Your task to perform on an android device: install app "VLC for Android" Image 0: 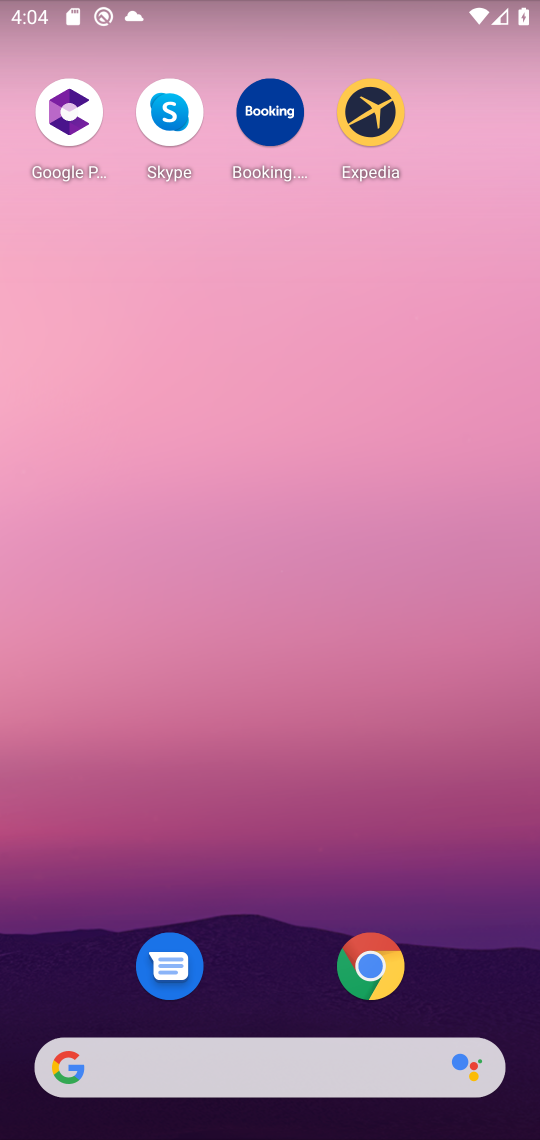
Step 0: drag from (287, 988) to (228, 18)
Your task to perform on an android device: install app "VLC for Android" Image 1: 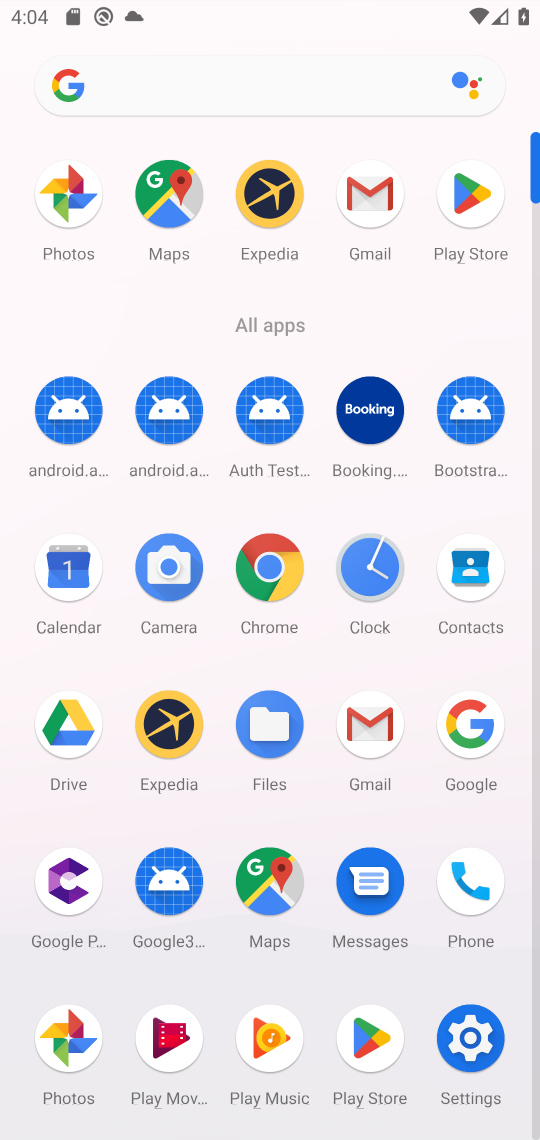
Step 1: click (367, 1031)
Your task to perform on an android device: install app "VLC for Android" Image 2: 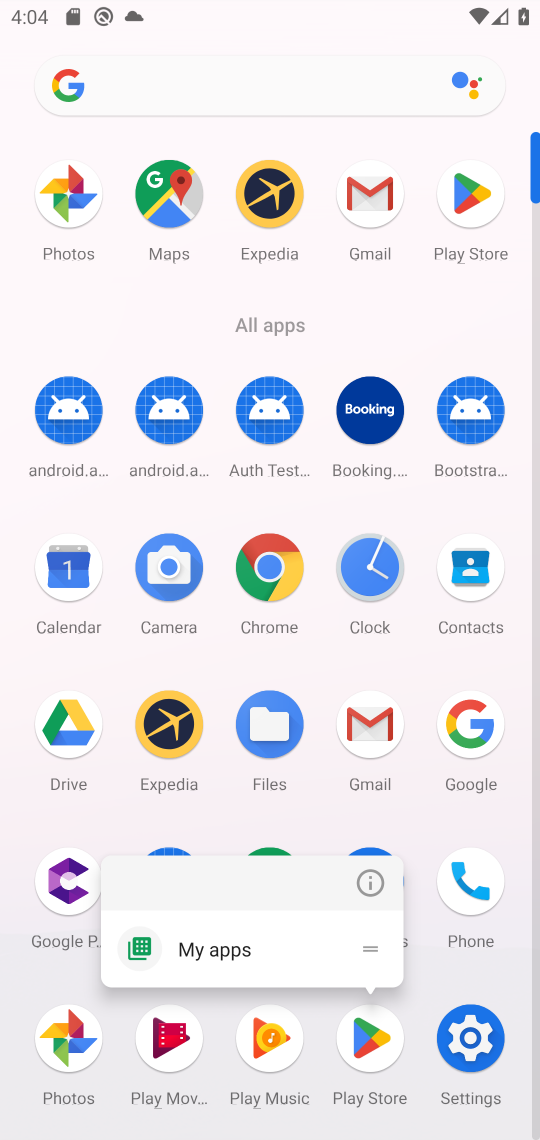
Step 2: click (388, 1051)
Your task to perform on an android device: install app "VLC for Android" Image 3: 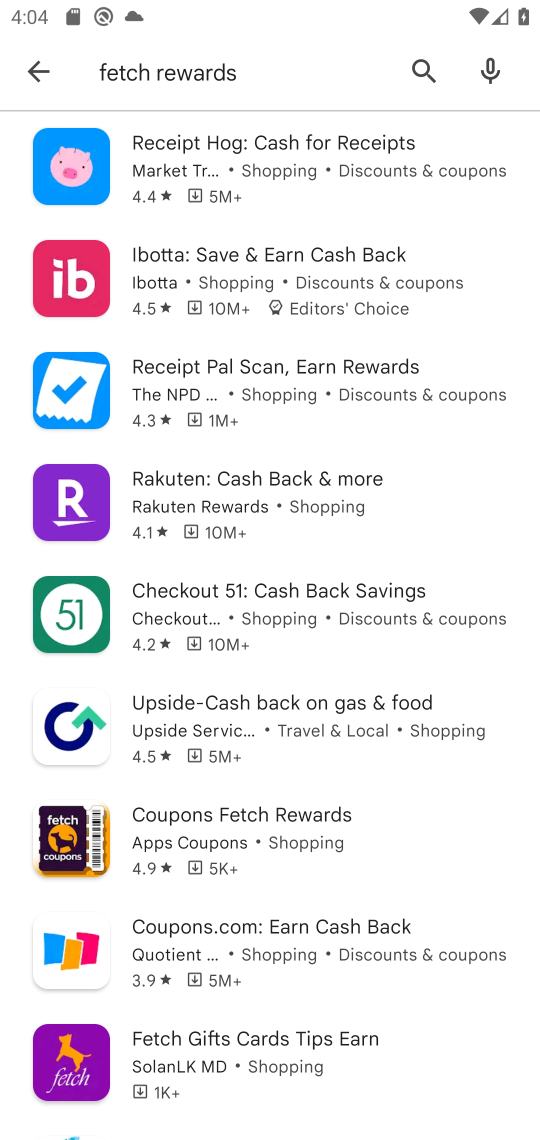
Step 3: click (98, 62)
Your task to perform on an android device: install app "VLC for Android" Image 4: 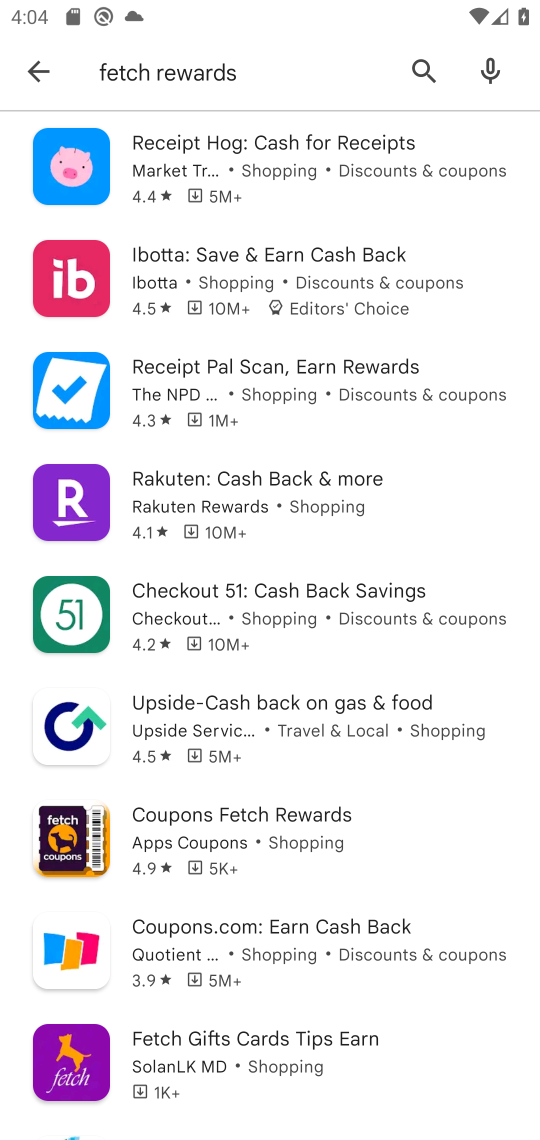
Step 4: click (41, 69)
Your task to perform on an android device: install app "VLC for Android" Image 5: 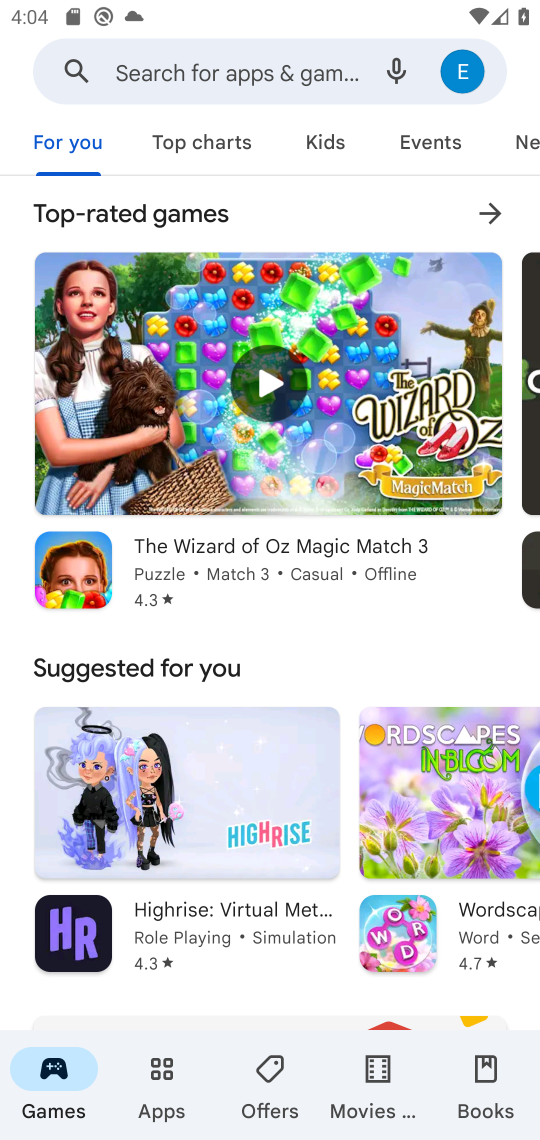
Step 5: click (327, 60)
Your task to perform on an android device: install app "VLC for Android" Image 6: 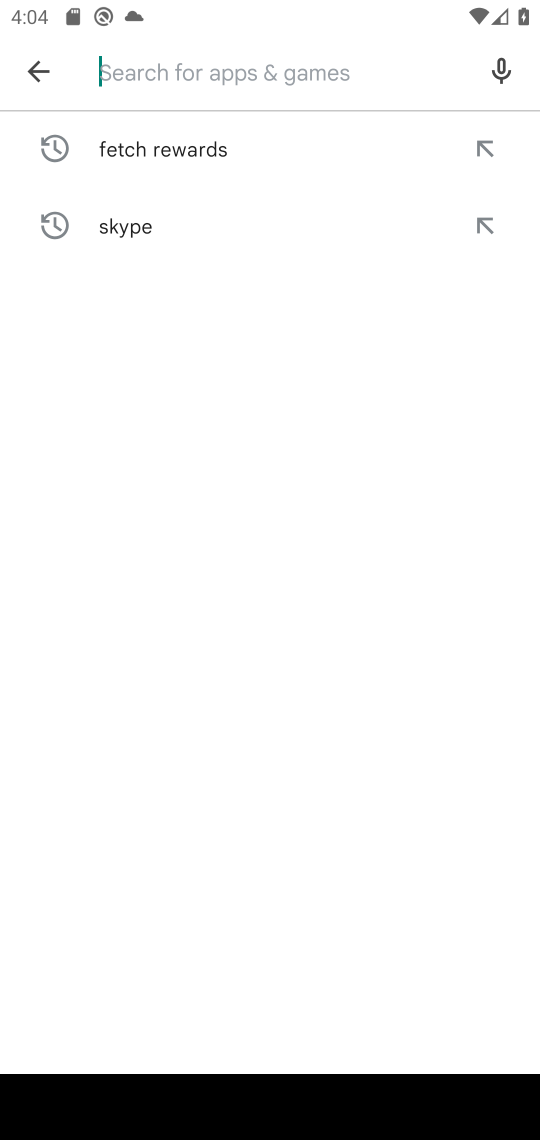
Step 6: type "VLC for Android"
Your task to perform on an android device: install app "VLC for Android" Image 7: 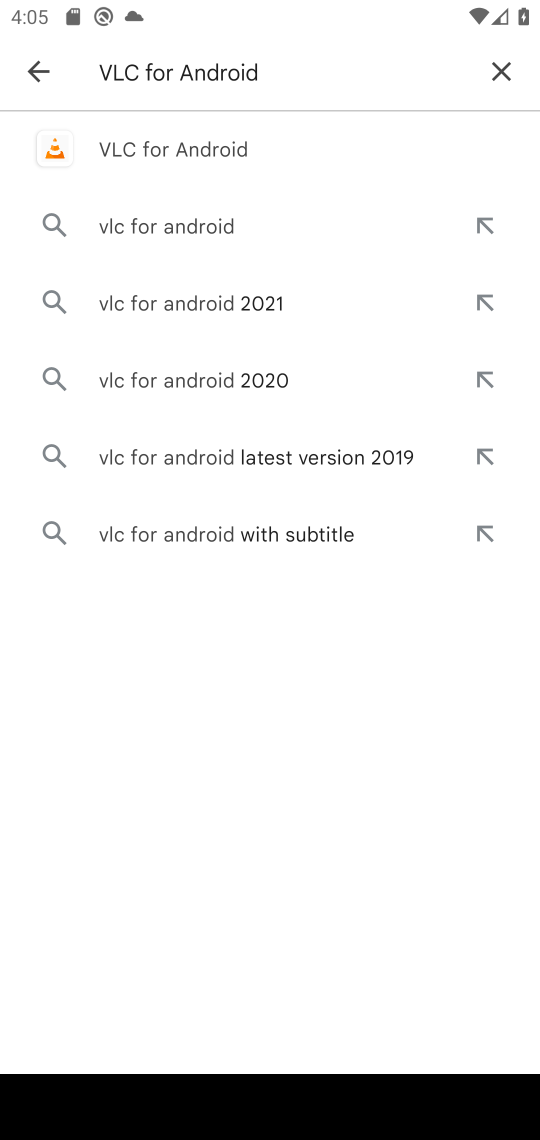
Step 7: click (115, 148)
Your task to perform on an android device: install app "VLC for Android" Image 8: 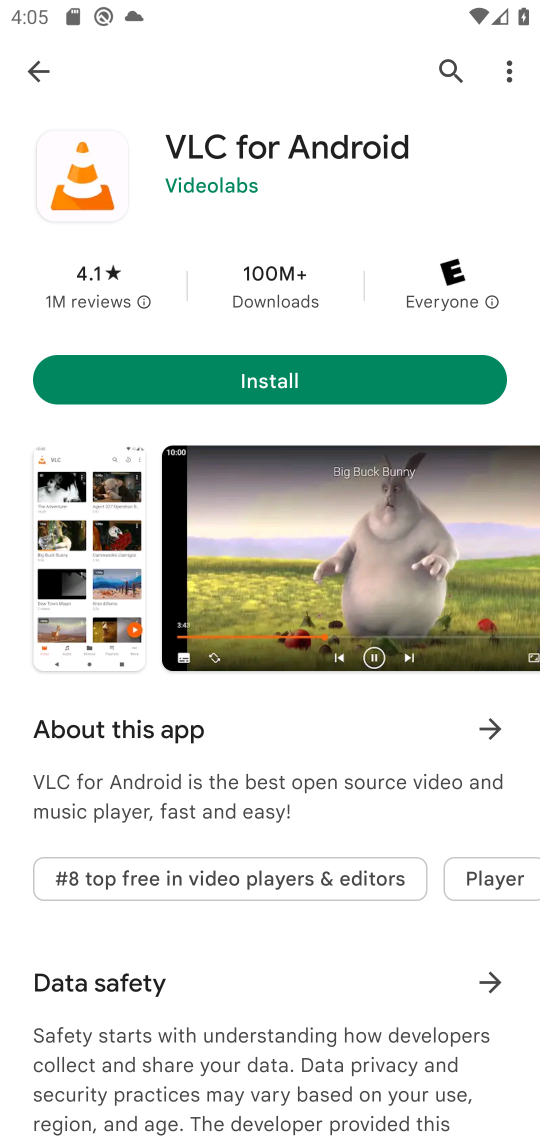
Step 8: click (245, 381)
Your task to perform on an android device: install app "VLC for Android" Image 9: 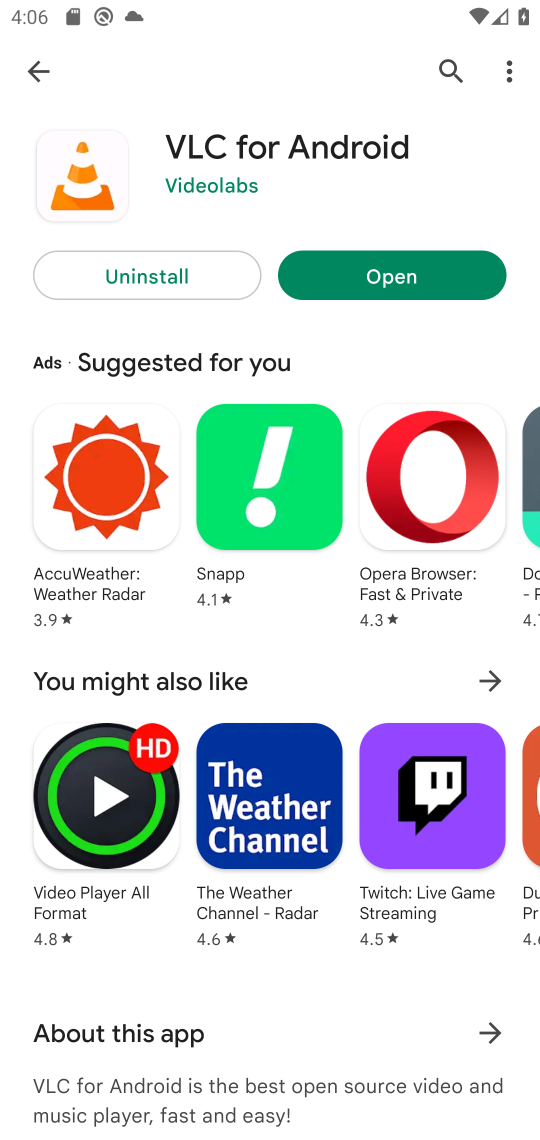
Step 9: click (413, 275)
Your task to perform on an android device: install app "VLC for Android" Image 10: 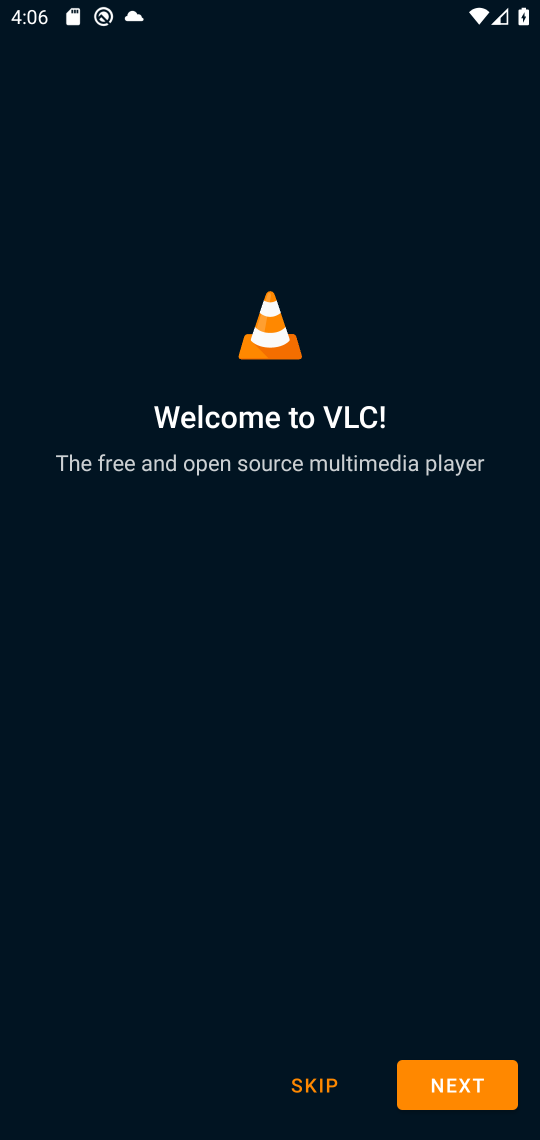
Step 10: click (443, 1093)
Your task to perform on an android device: install app "VLC for Android" Image 11: 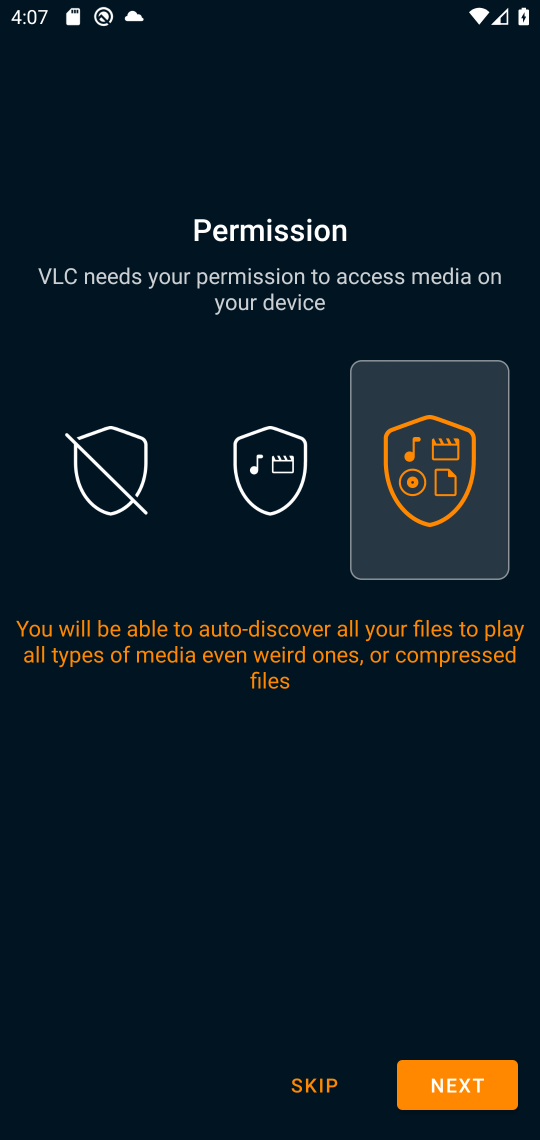
Step 11: task complete